Your task to perform on an android device: What's the weather going to be tomorrow? Image 0: 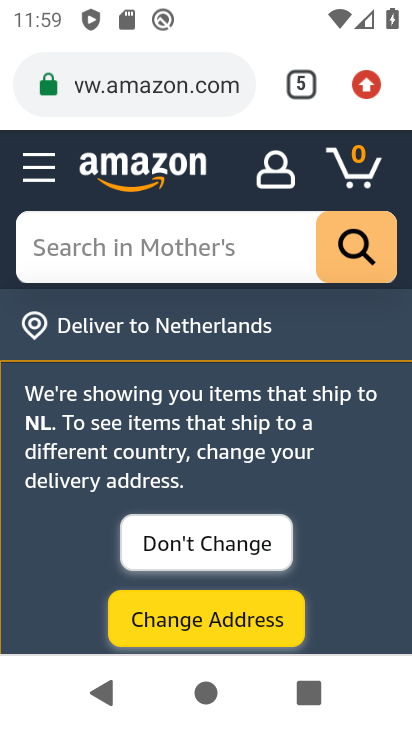
Step 0: press home button
Your task to perform on an android device: What's the weather going to be tomorrow? Image 1: 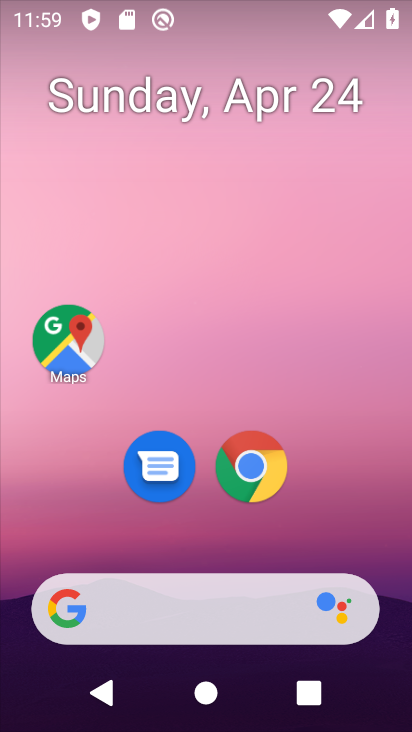
Step 1: drag from (239, 414) to (198, 46)
Your task to perform on an android device: What's the weather going to be tomorrow? Image 2: 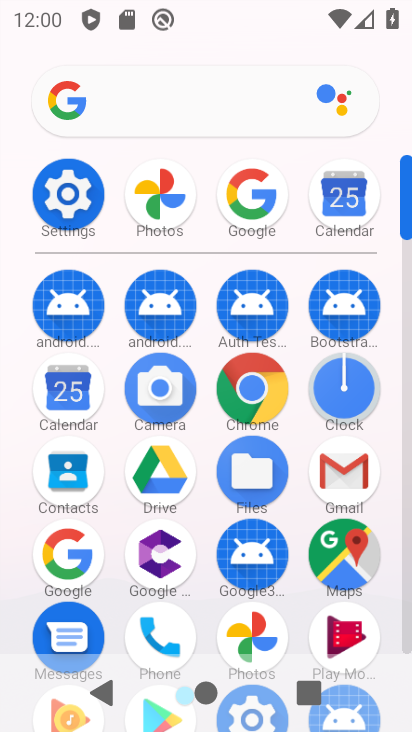
Step 2: click (75, 562)
Your task to perform on an android device: What's the weather going to be tomorrow? Image 3: 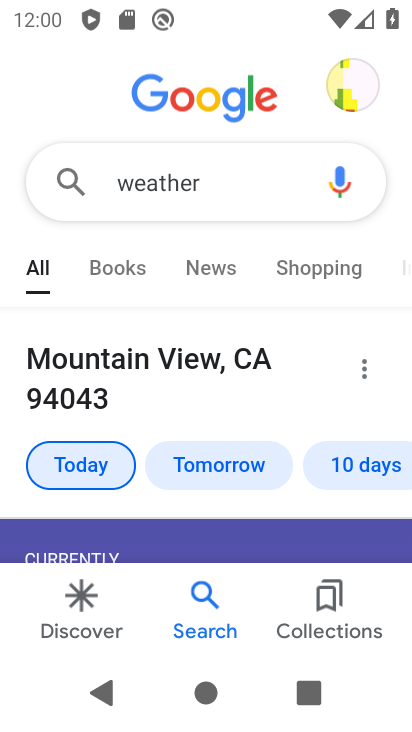
Step 3: task complete